Your task to perform on an android device: move an email to a new category in the gmail app Image 0: 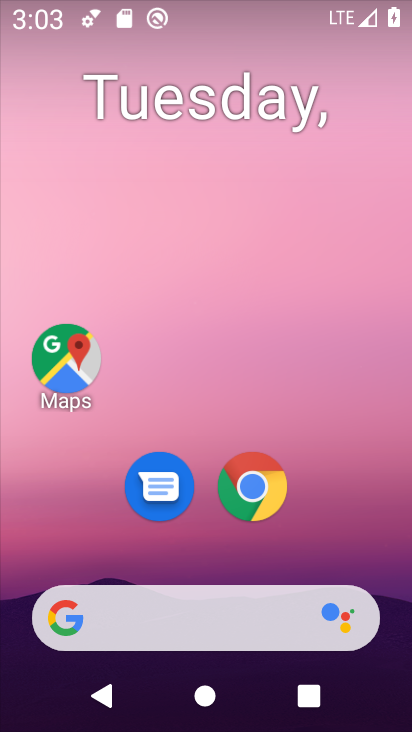
Step 0: press home button
Your task to perform on an android device: move an email to a new category in the gmail app Image 1: 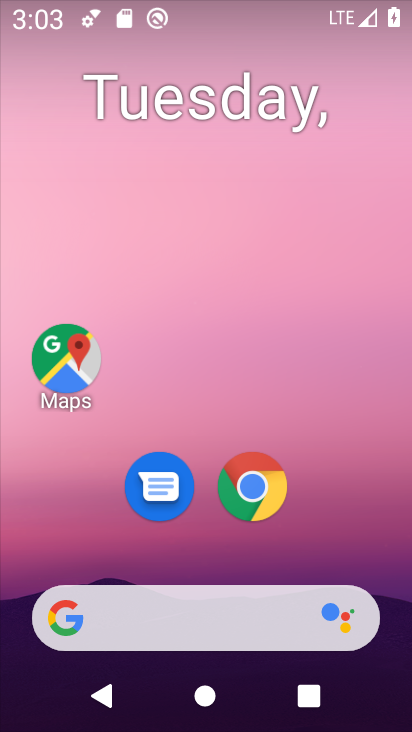
Step 1: drag from (365, 529) to (343, 125)
Your task to perform on an android device: move an email to a new category in the gmail app Image 2: 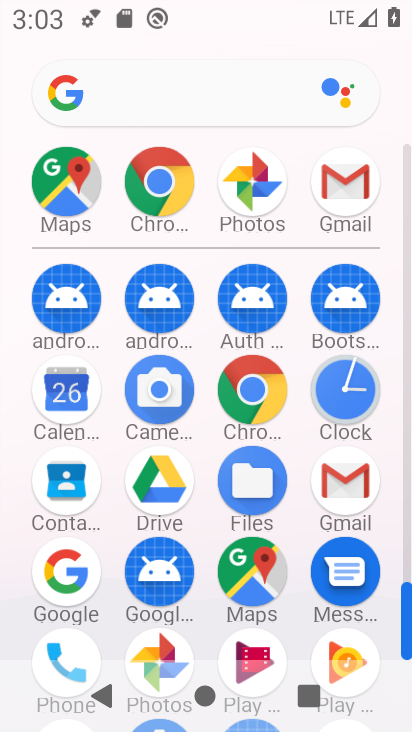
Step 2: click (343, 492)
Your task to perform on an android device: move an email to a new category in the gmail app Image 3: 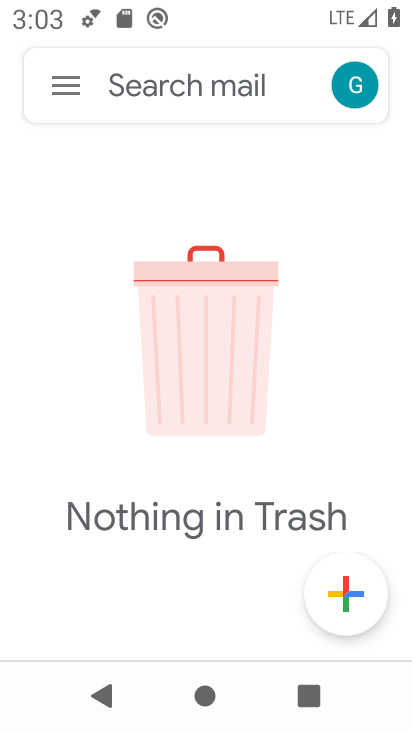
Step 3: click (64, 86)
Your task to perform on an android device: move an email to a new category in the gmail app Image 4: 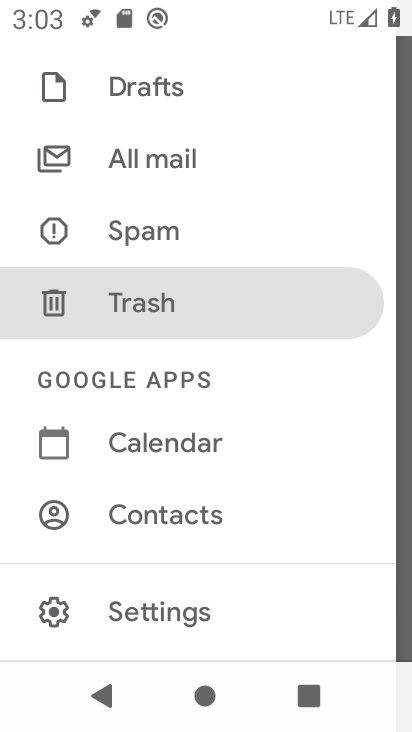
Step 4: drag from (291, 217) to (312, 335)
Your task to perform on an android device: move an email to a new category in the gmail app Image 5: 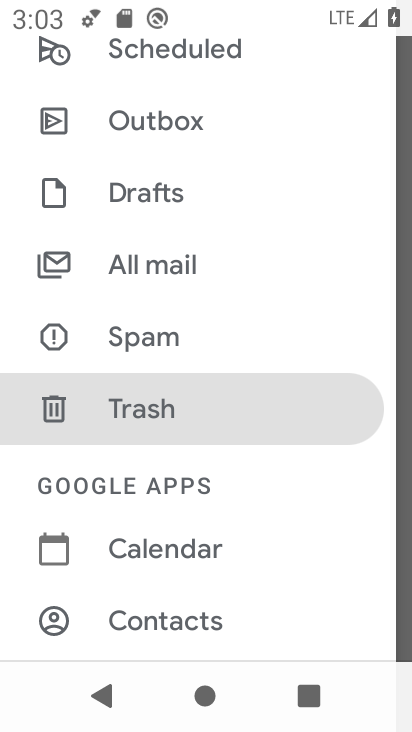
Step 5: click (210, 276)
Your task to perform on an android device: move an email to a new category in the gmail app Image 6: 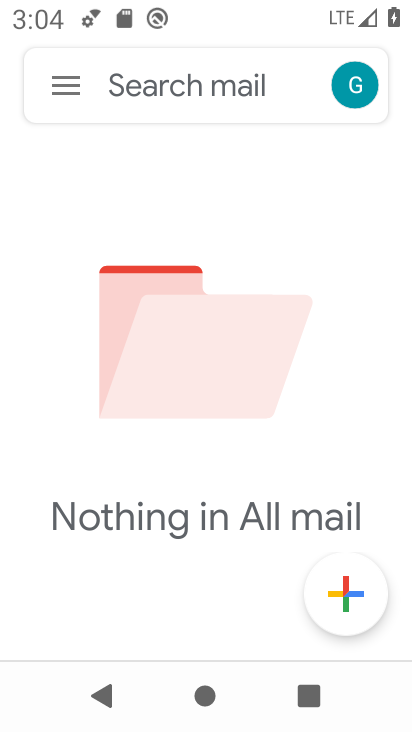
Step 6: task complete